Your task to perform on an android device: change timer sound Image 0: 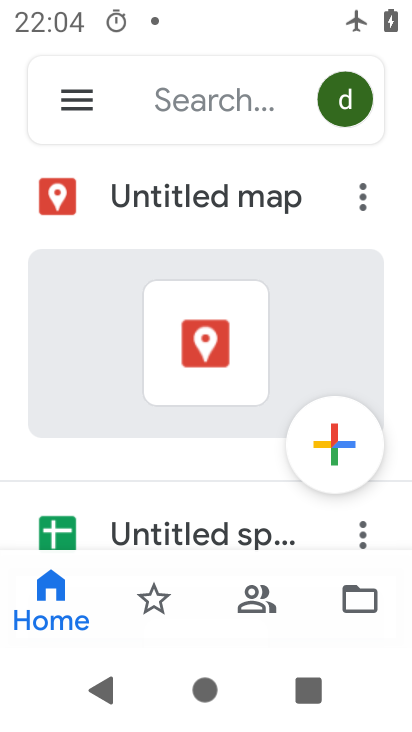
Step 0: press home button
Your task to perform on an android device: change timer sound Image 1: 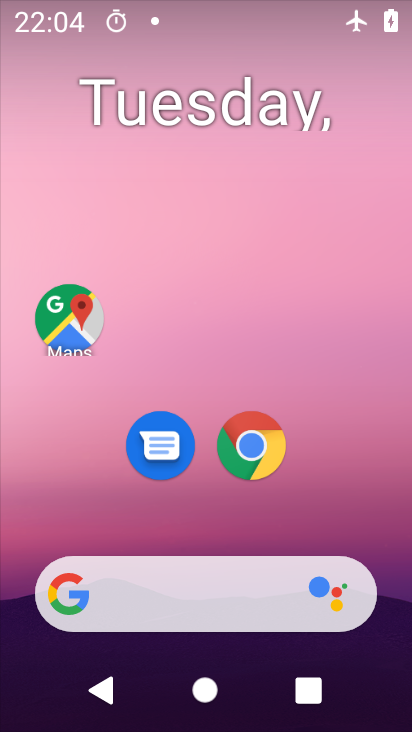
Step 1: click (273, 439)
Your task to perform on an android device: change timer sound Image 2: 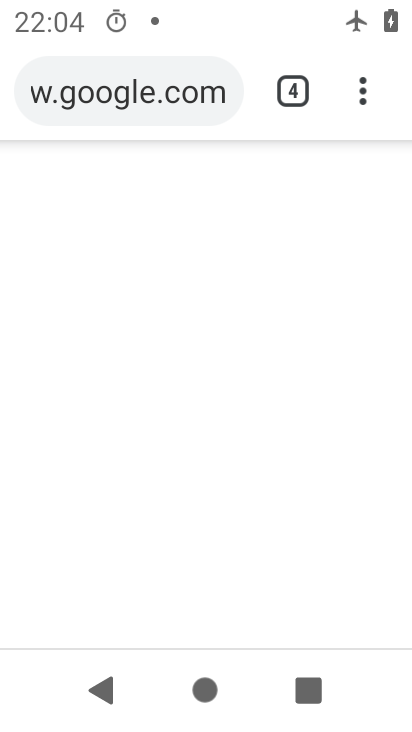
Step 2: press home button
Your task to perform on an android device: change timer sound Image 3: 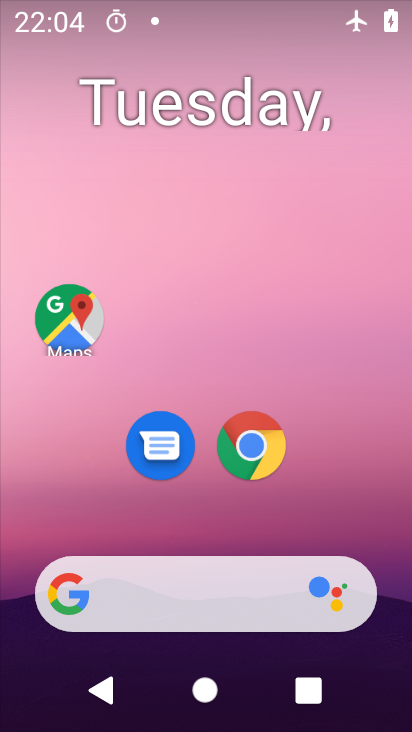
Step 3: drag from (398, 560) to (321, 211)
Your task to perform on an android device: change timer sound Image 4: 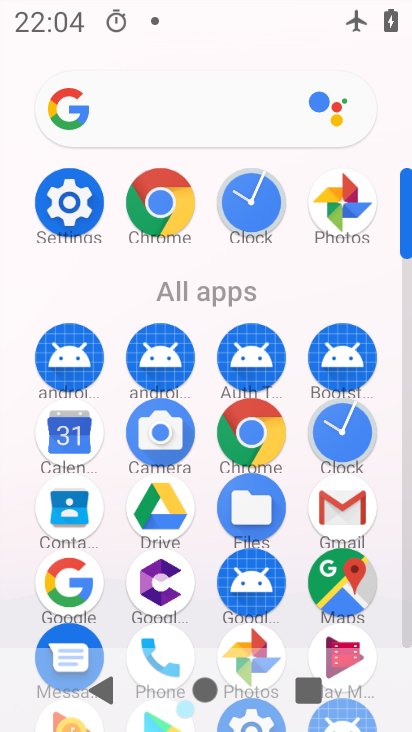
Step 4: click (244, 197)
Your task to perform on an android device: change timer sound Image 5: 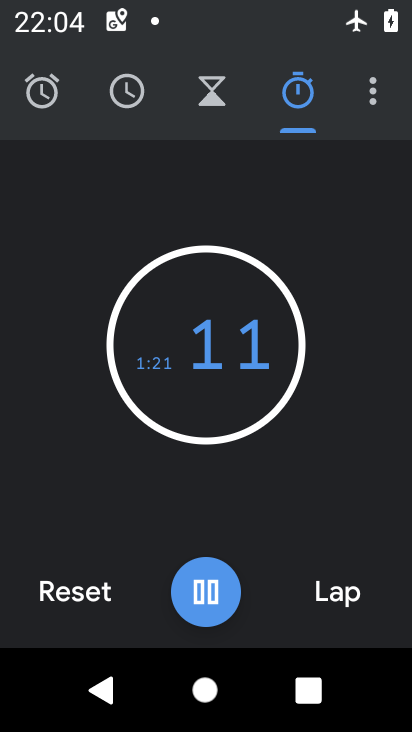
Step 5: click (372, 110)
Your task to perform on an android device: change timer sound Image 6: 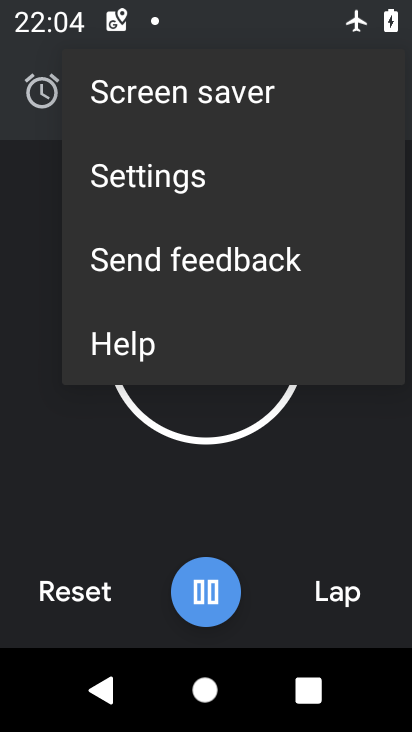
Step 6: click (338, 166)
Your task to perform on an android device: change timer sound Image 7: 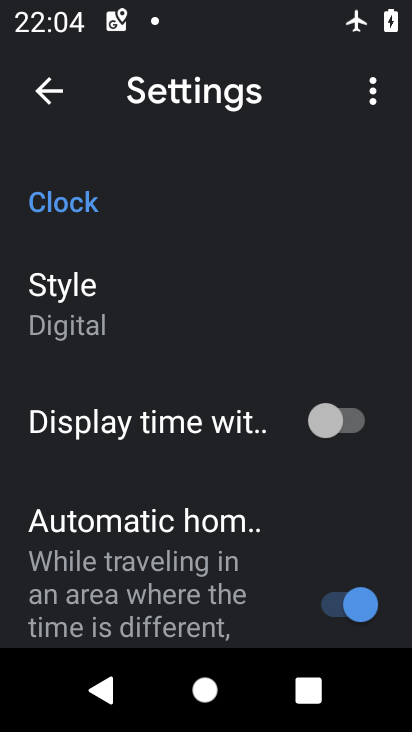
Step 7: drag from (274, 539) to (257, 169)
Your task to perform on an android device: change timer sound Image 8: 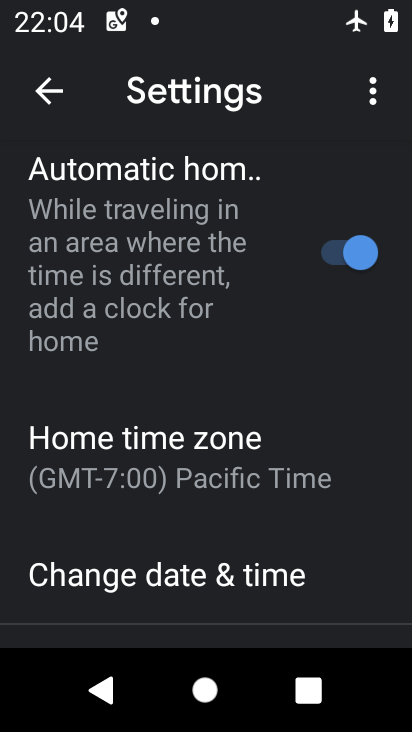
Step 8: drag from (281, 523) to (275, 357)
Your task to perform on an android device: change timer sound Image 9: 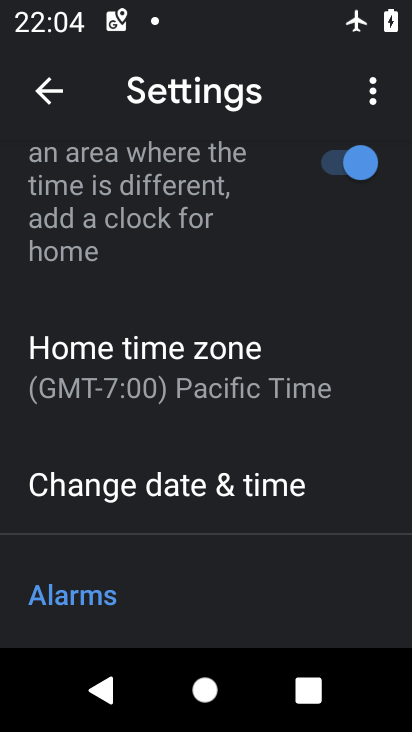
Step 9: drag from (267, 542) to (272, 166)
Your task to perform on an android device: change timer sound Image 10: 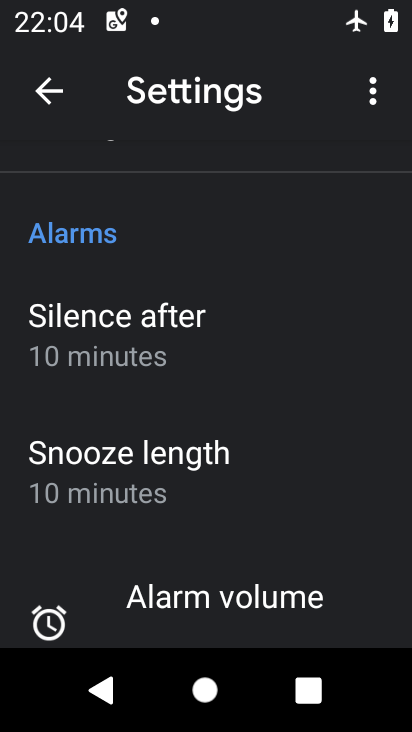
Step 10: drag from (302, 230) to (315, 147)
Your task to perform on an android device: change timer sound Image 11: 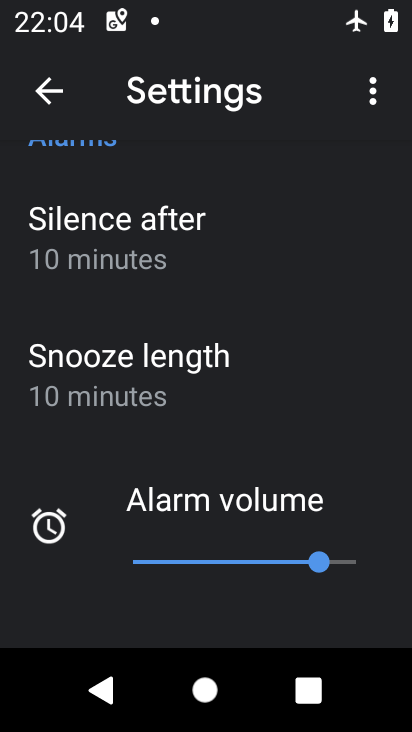
Step 11: drag from (289, 622) to (272, 246)
Your task to perform on an android device: change timer sound Image 12: 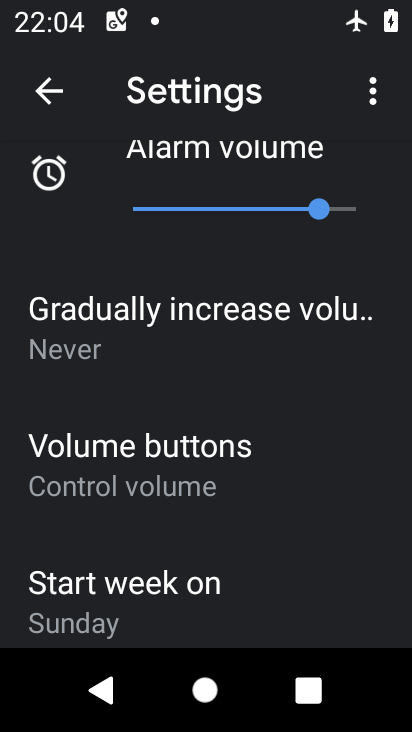
Step 12: drag from (262, 474) to (246, 64)
Your task to perform on an android device: change timer sound Image 13: 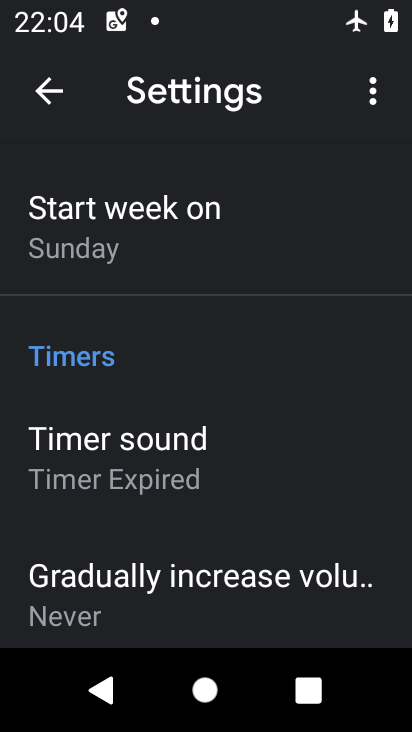
Step 13: click (245, 451)
Your task to perform on an android device: change timer sound Image 14: 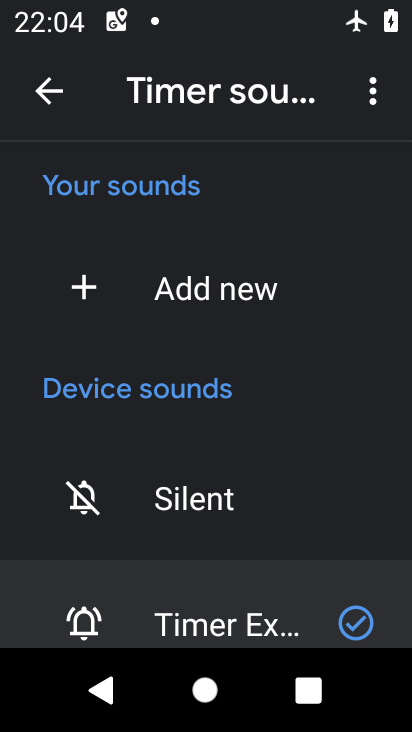
Step 14: drag from (259, 509) to (259, 118)
Your task to perform on an android device: change timer sound Image 15: 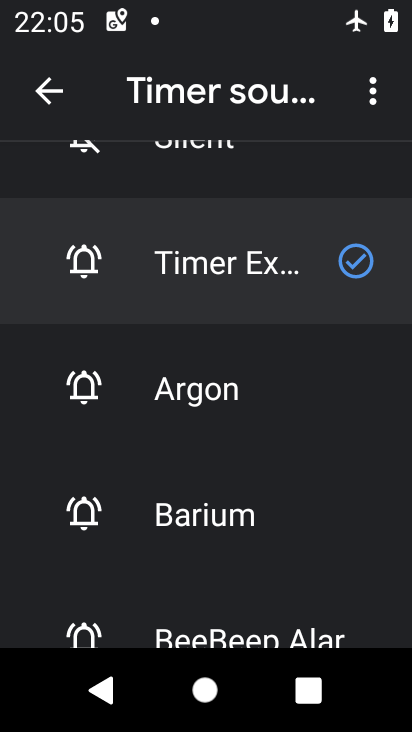
Step 15: click (251, 512)
Your task to perform on an android device: change timer sound Image 16: 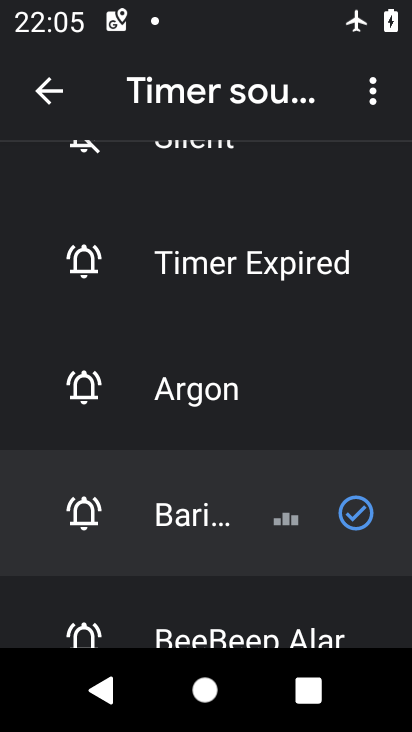
Step 16: task complete